Your task to perform on an android device: Go to Yahoo.com Image 0: 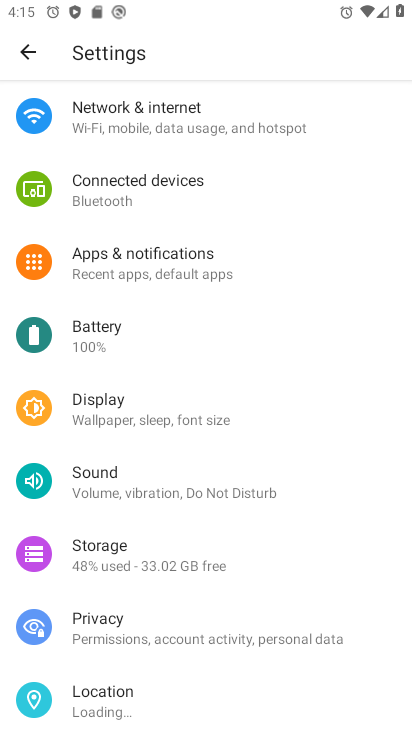
Step 0: press back button
Your task to perform on an android device: Go to Yahoo.com Image 1: 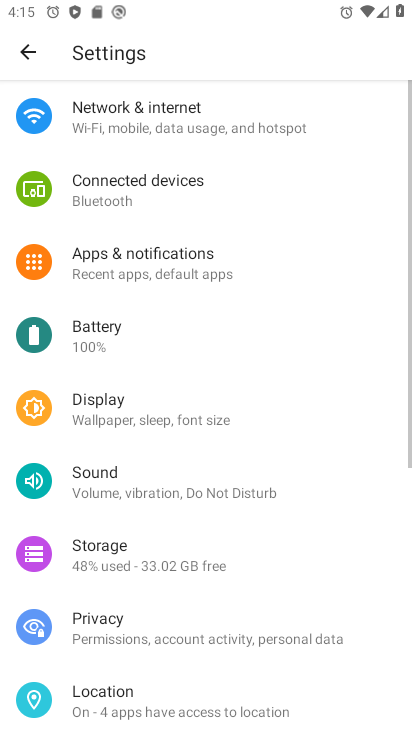
Step 1: press back button
Your task to perform on an android device: Go to Yahoo.com Image 2: 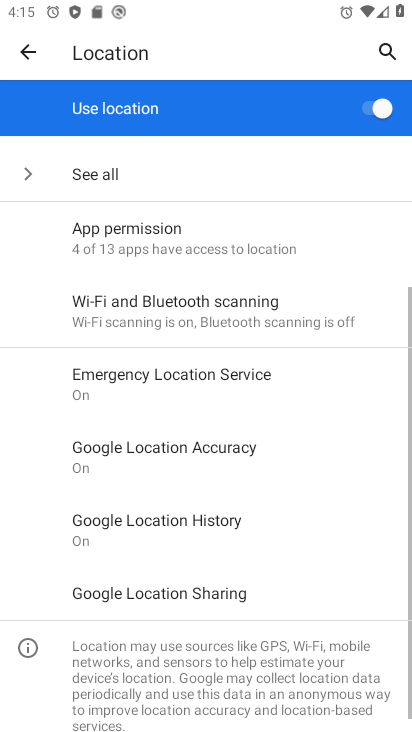
Step 2: press back button
Your task to perform on an android device: Go to Yahoo.com Image 3: 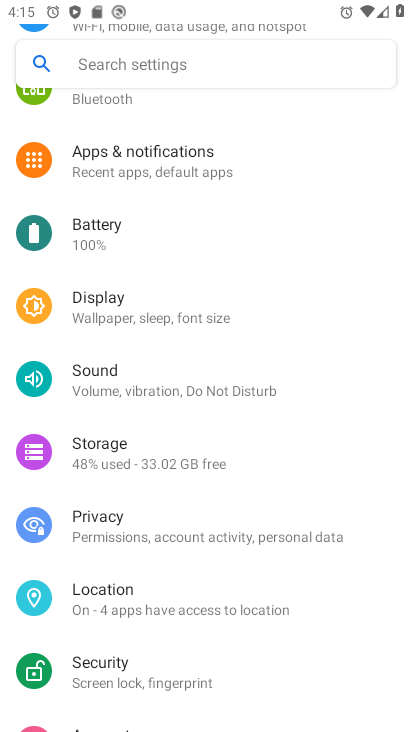
Step 3: press back button
Your task to perform on an android device: Go to Yahoo.com Image 4: 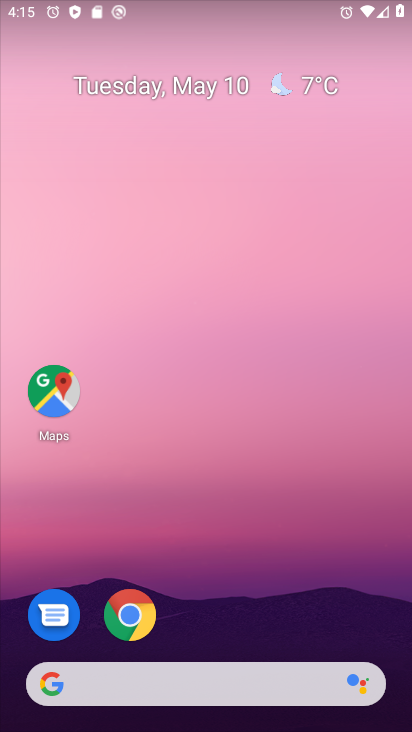
Step 4: drag from (243, 547) to (191, 39)
Your task to perform on an android device: Go to Yahoo.com Image 5: 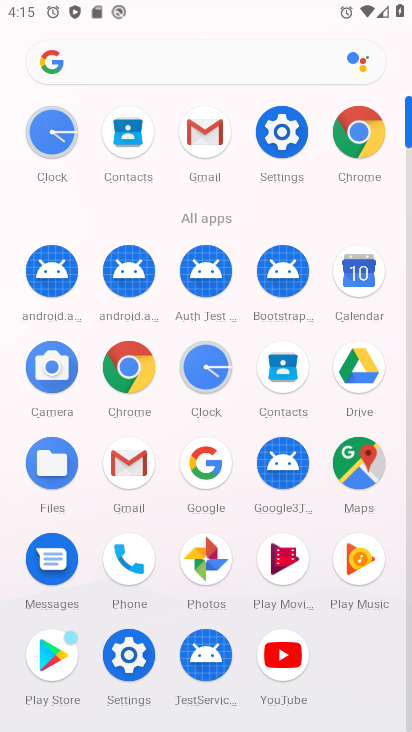
Step 5: click (126, 365)
Your task to perform on an android device: Go to Yahoo.com Image 6: 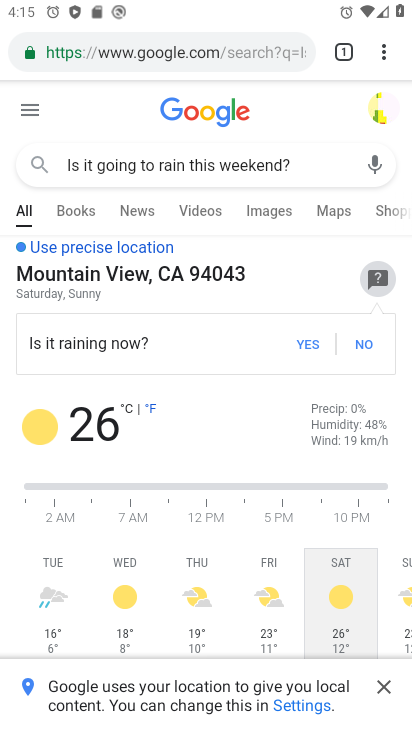
Step 6: click (204, 50)
Your task to perform on an android device: Go to Yahoo.com Image 7: 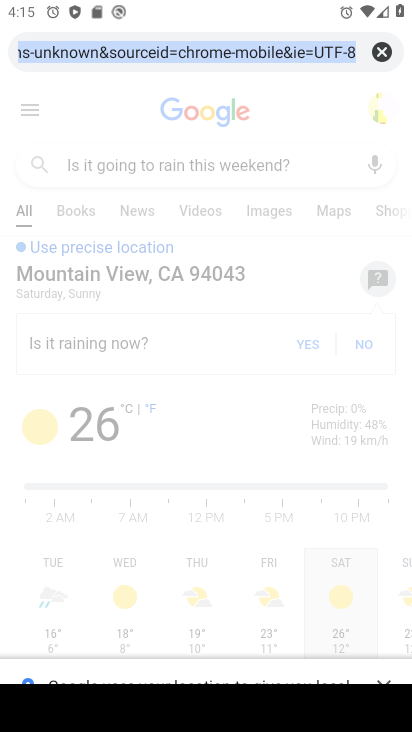
Step 7: click (375, 47)
Your task to perform on an android device: Go to Yahoo.com Image 8: 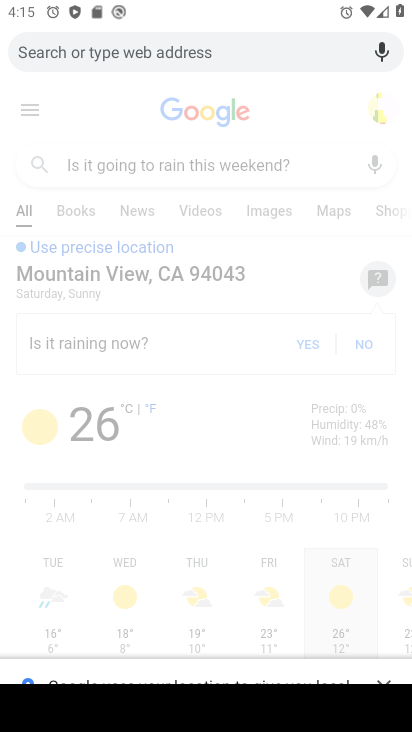
Step 8: type "Yahoo.com"
Your task to perform on an android device: Go to Yahoo.com Image 9: 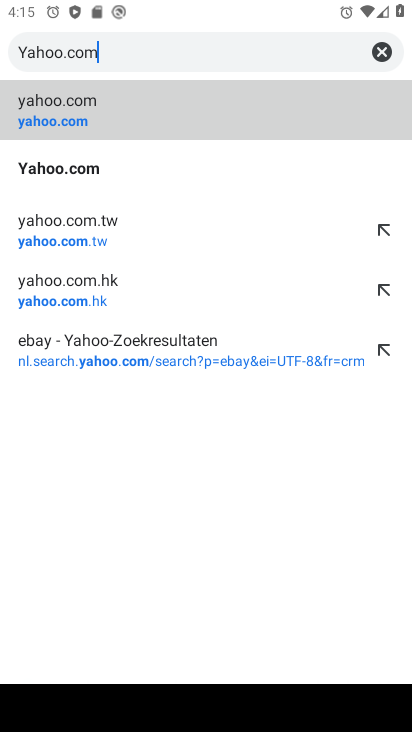
Step 9: click (154, 105)
Your task to perform on an android device: Go to Yahoo.com Image 10: 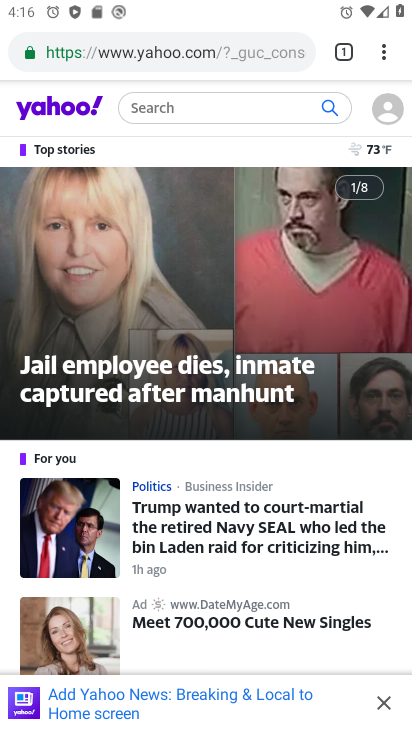
Step 10: task complete